Your task to perform on an android device: turn on location history Image 0: 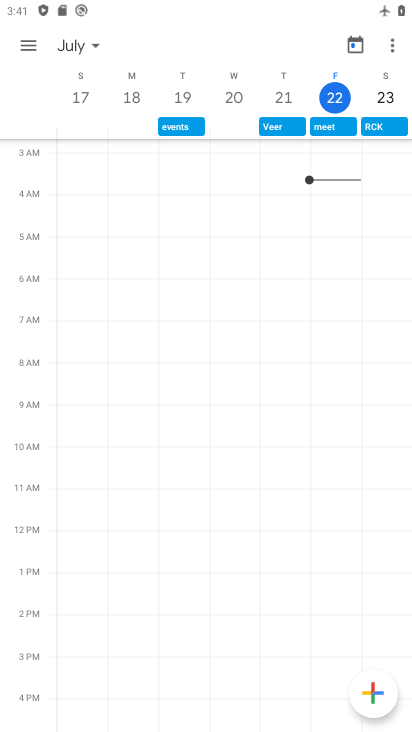
Step 0: press home button
Your task to perform on an android device: turn on location history Image 1: 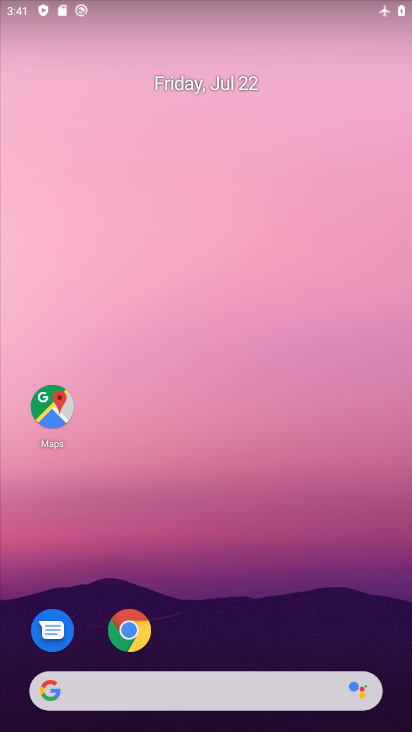
Step 1: drag from (233, 621) to (191, 0)
Your task to perform on an android device: turn on location history Image 2: 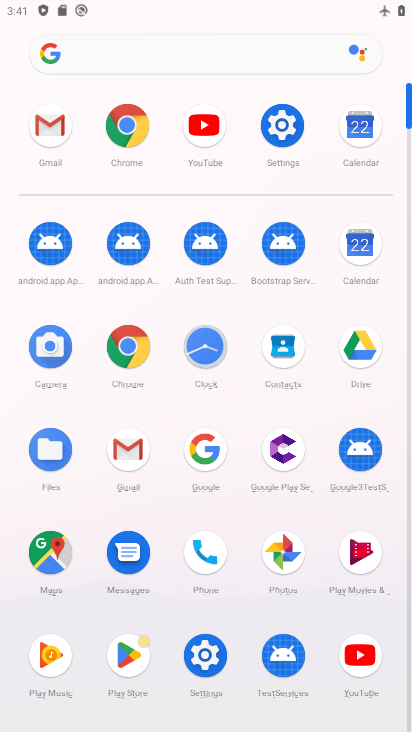
Step 2: click (213, 668)
Your task to perform on an android device: turn on location history Image 3: 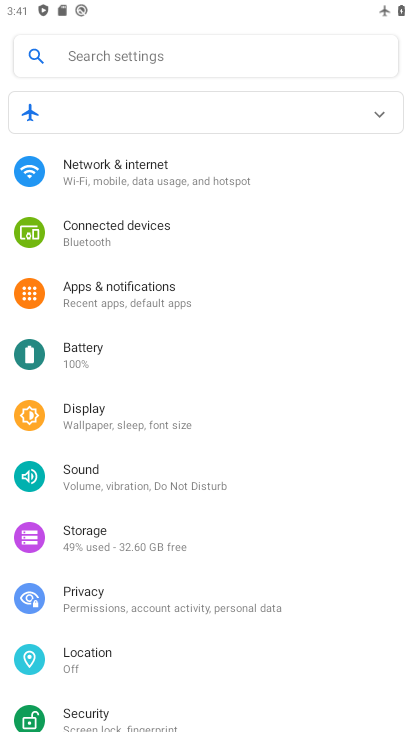
Step 3: click (96, 653)
Your task to perform on an android device: turn on location history Image 4: 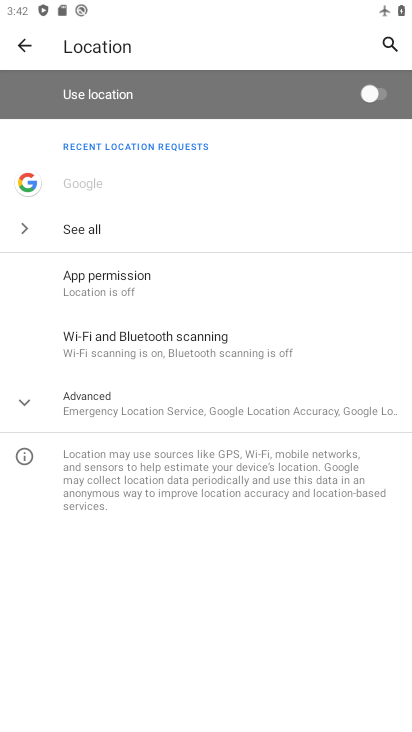
Step 4: click (126, 409)
Your task to perform on an android device: turn on location history Image 5: 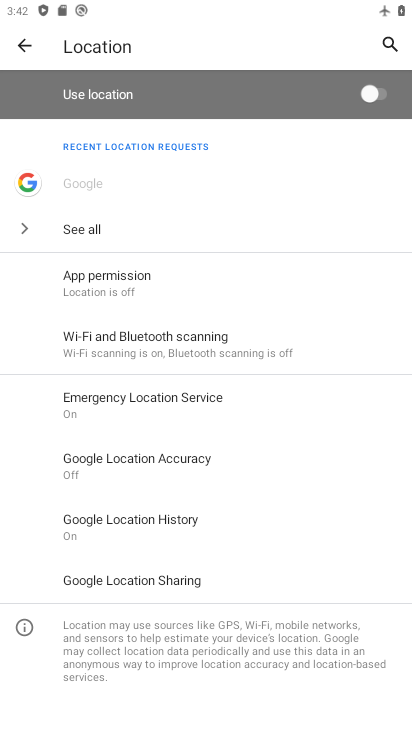
Step 5: click (135, 534)
Your task to perform on an android device: turn on location history Image 6: 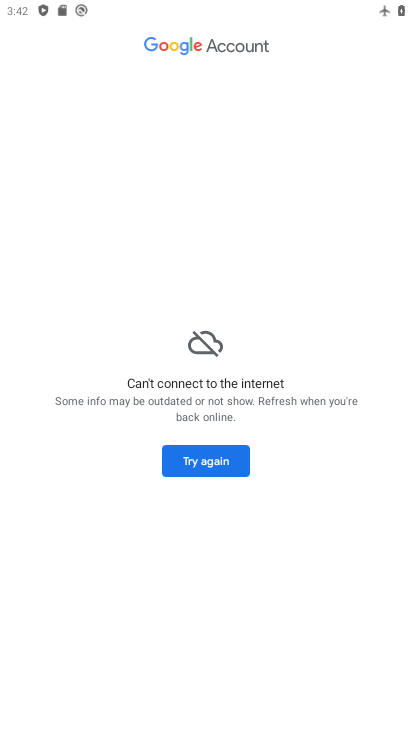
Step 6: click (204, 452)
Your task to perform on an android device: turn on location history Image 7: 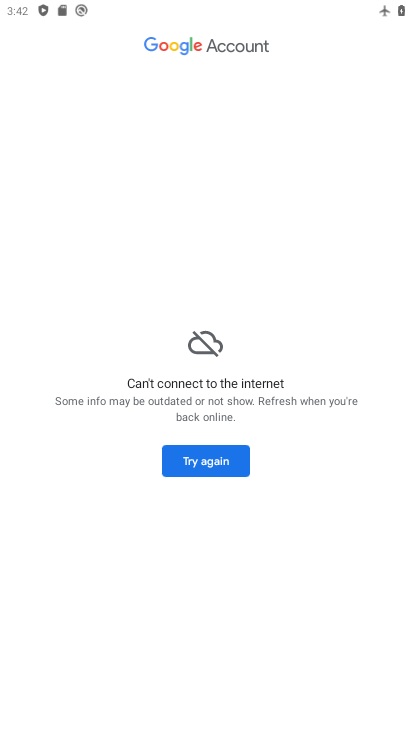
Step 7: click (195, 452)
Your task to perform on an android device: turn on location history Image 8: 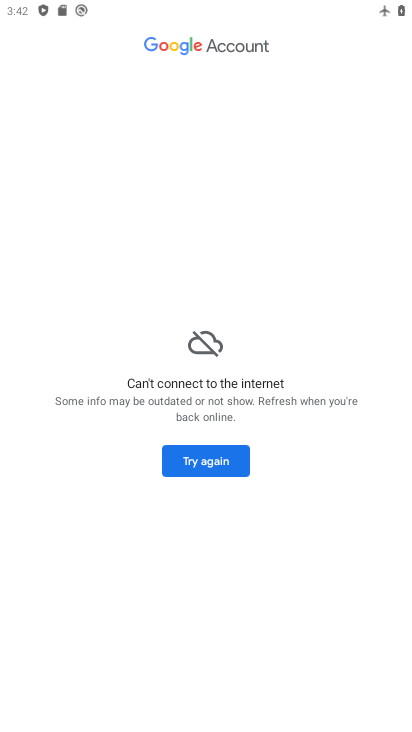
Step 8: task complete